Your task to perform on an android device: Find coffee shops on Maps Image 0: 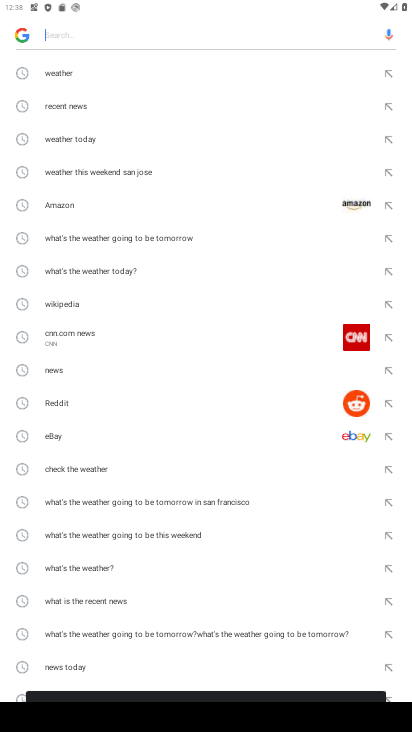
Step 0: press home button
Your task to perform on an android device: Find coffee shops on Maps Image 1: 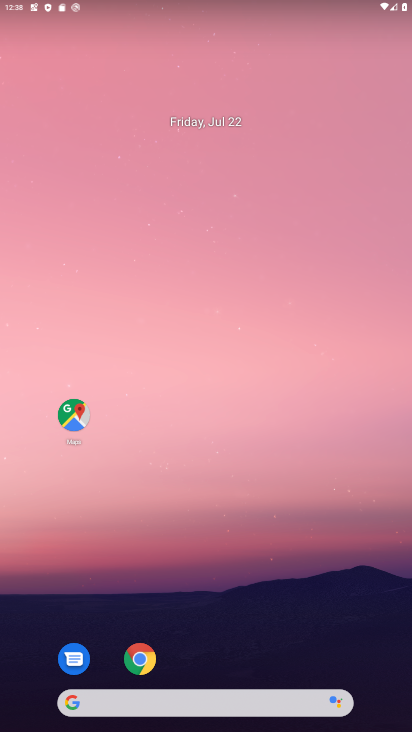
Step 1: click (75, 422)
Your task to perform on an android device: Find coffee shops on Maps Image 2: 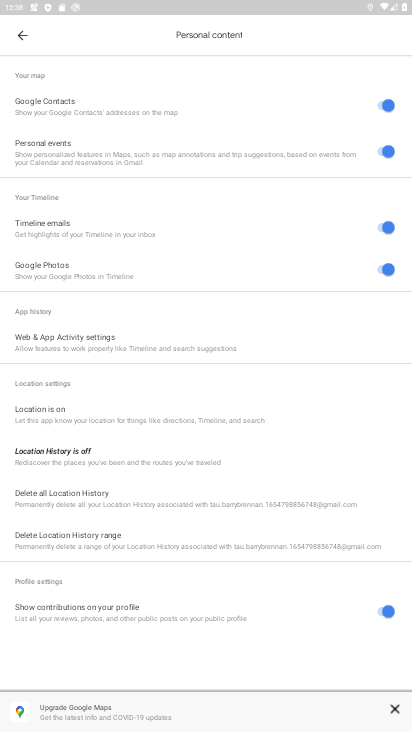
Step 2: click (21, 42)
Your task to perform on an android device: Find coffee shops on Maps Image 3: 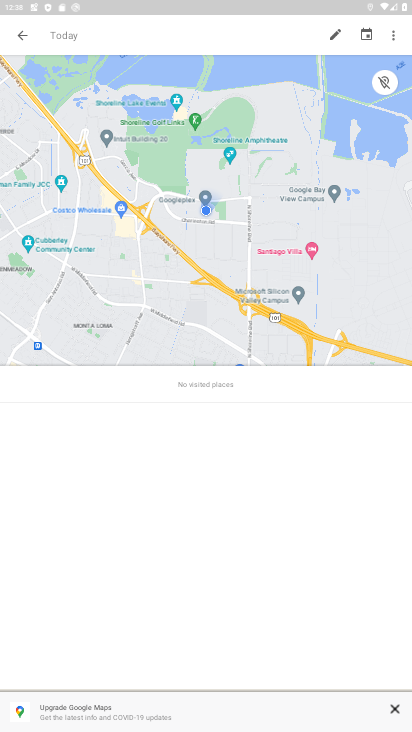
Step 3: click (28, 35)
Your task to perform on an android device: Find coffee shops on Maps Image 4: 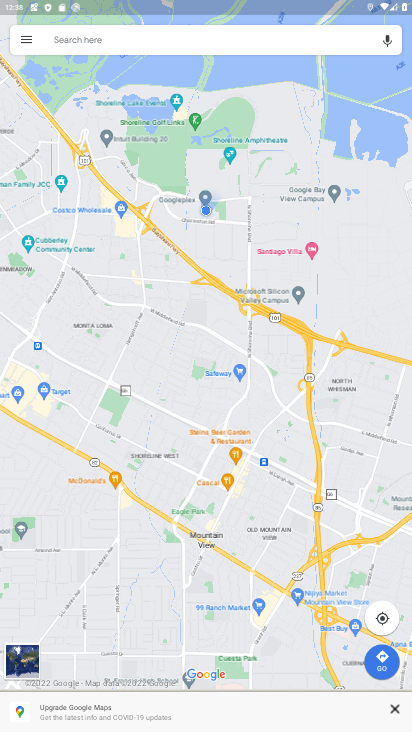
Step 4: click (94, 35)
Your task to perform on an android device: Find coffee shops on Maps Image 5: 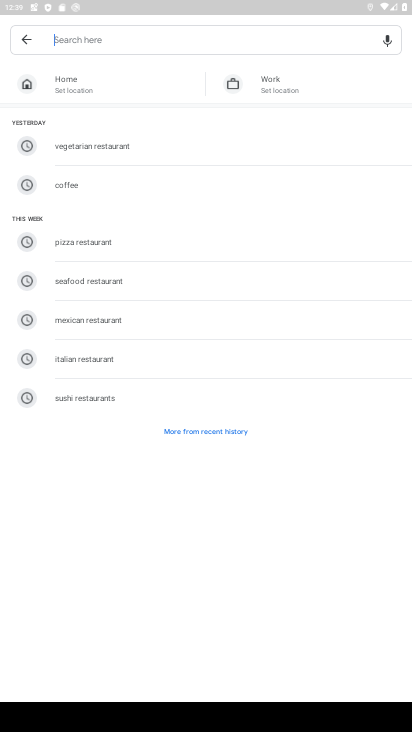
Step 5: click (68, 181)
Your task to perform on an android device: Find coffee shops on Maps Image 6: 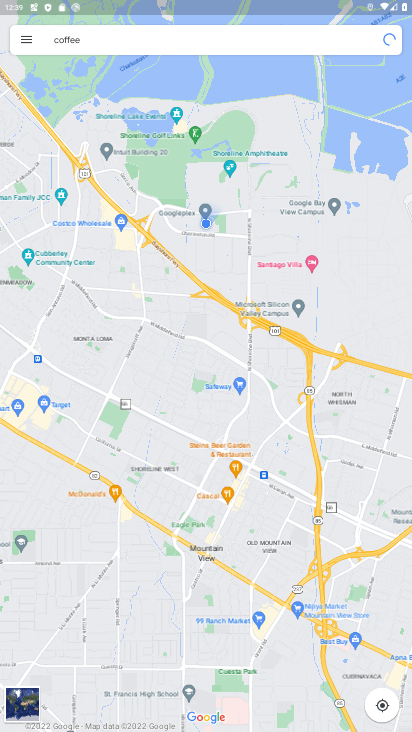
Step 6: task complete